Your task to perform on an android device: turn off notifications in google photos Image 0: 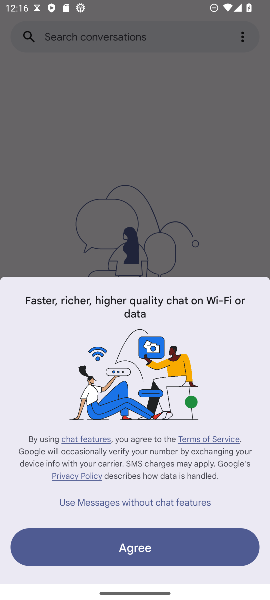
Step 0: press home button
Your task to perform on an android device: turn off notifications in google photos Image 1: 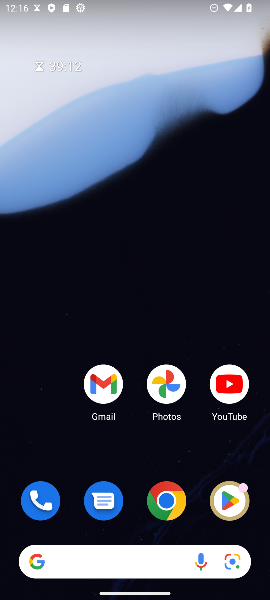
Step 1: drag from (145, 522) to (148, 114)
Your task to perform on an android device: turn off notifications in google photos Image 2: 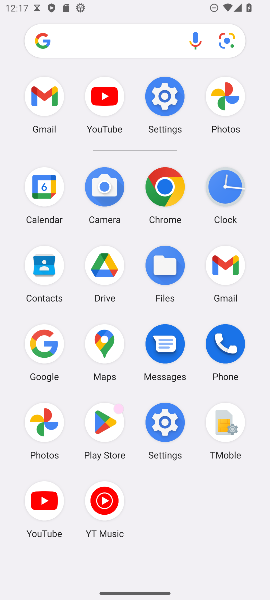
Step 2: click (45, 432)
Your task to perform on an android device: turn off notifications in google photos Image 3: 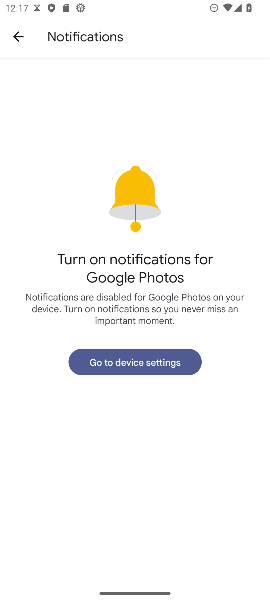
Step 3: click (21, 38)
Your task to perform on an android device: turn off notifications in google photos Image 4: 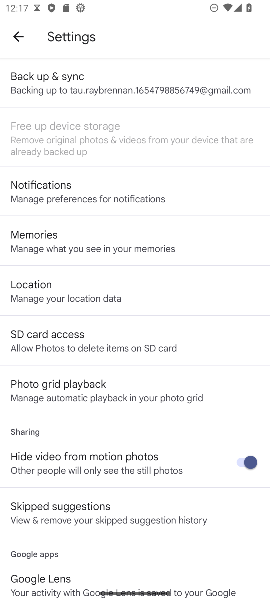
Step 4: click (109, 205)
Your task to perform on an android device: turn off notifications in google photos Image 5: 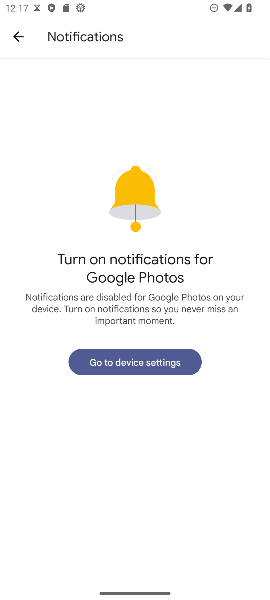
Step 5: click (118, 356)
Your task to perform on an android device: turn off notifications in google photos Image 6: 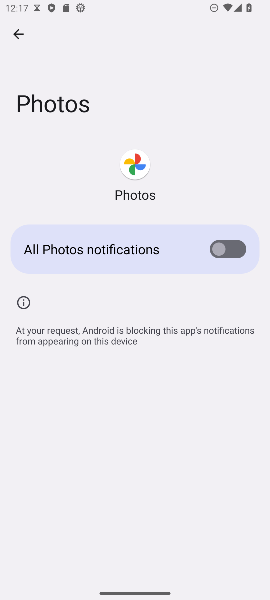
Step 6: task complete